Your task to perform on an android device: stop showing notifications on the lock screen Image 0: 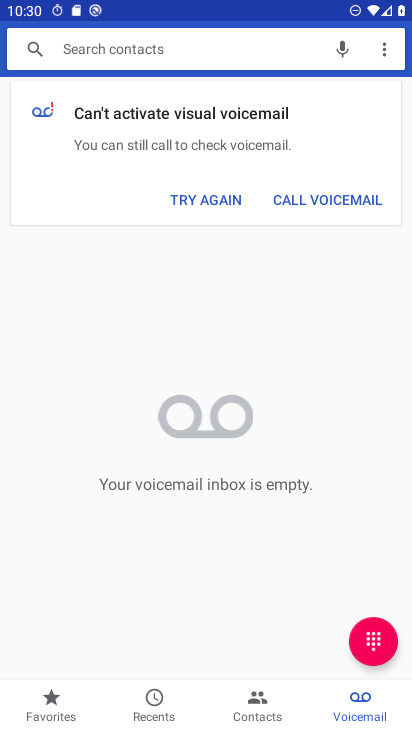
Step 0: press home button
Your task to perform on an android device: stop showing notifications on the lock screen Image 1: 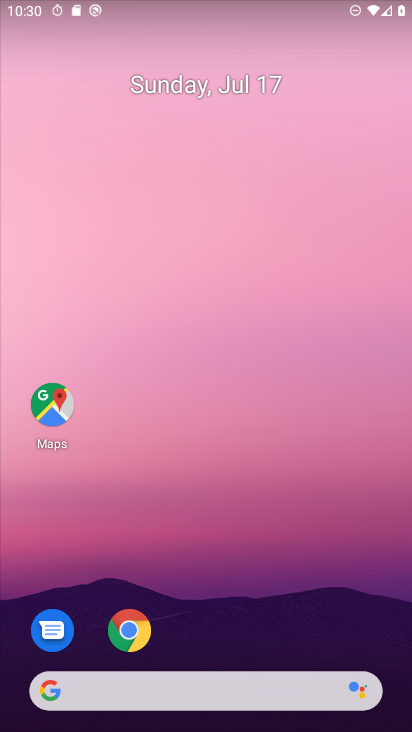
Step 1: drag from (219, 660) to (218, 113)
Your task to perform on an android device: stop showing notifications on the lock screen Image 2: 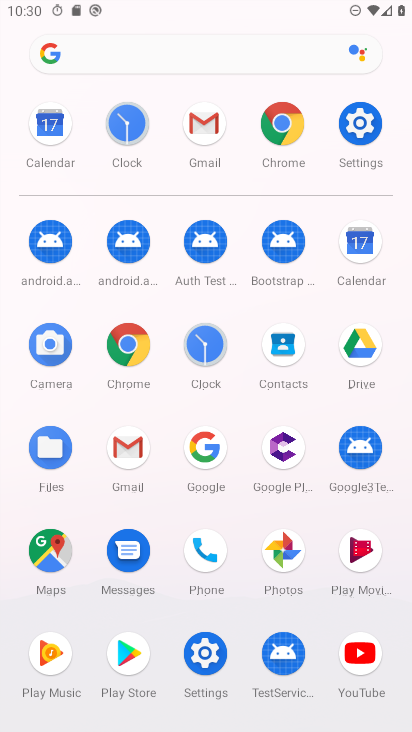
Step 2: click (358, 120)
Your task to perform on an android device: stop showing notifications on the lock screen Image 3: 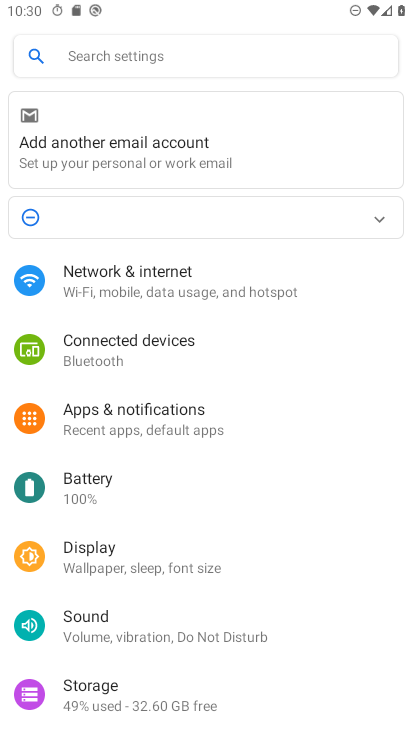
Step 3: click (165, 270)
Your task to perform on an android device: stop showing notifications on the lock screen Image 4: 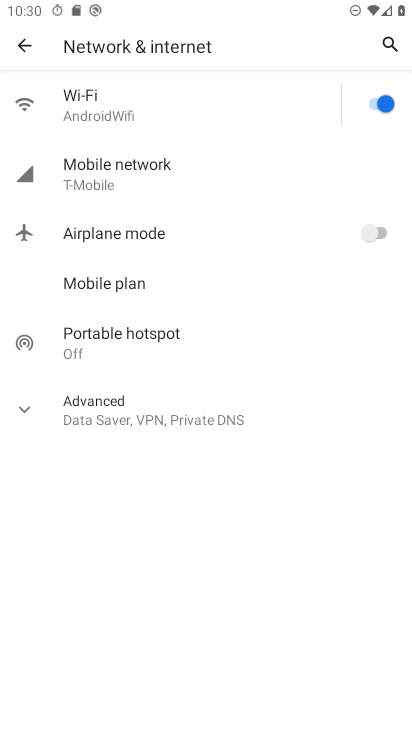
Step 4: click (32, 37)
Your task to perform on an android device: stop showing notifications on the lock screen Image 5: 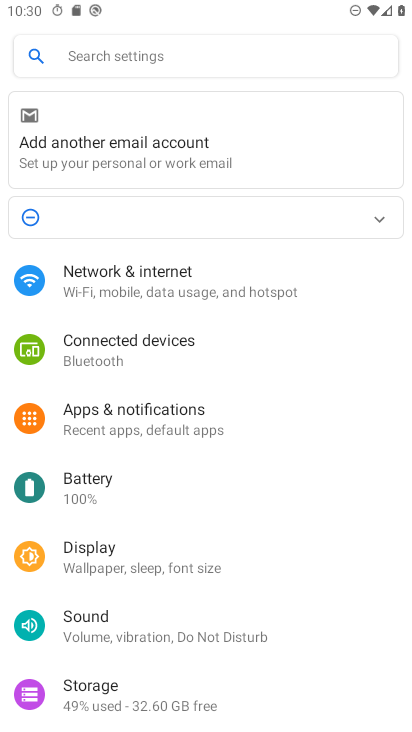
Step 5: click (183, 413)
Your task to perform on an android device: stop showing notifications on the lock screen Image 6: 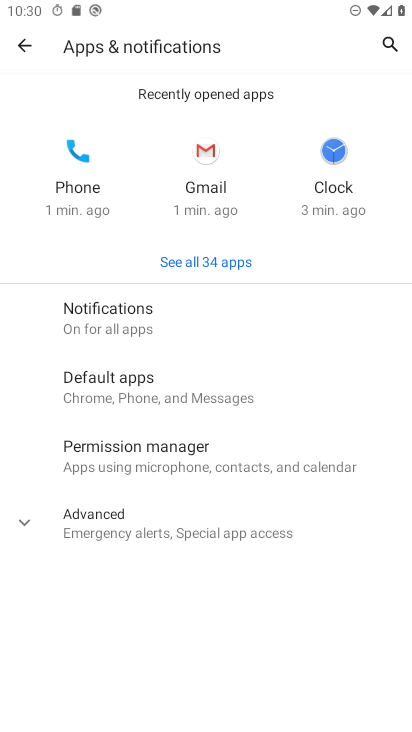
Step 6: click (176, 309)
Your task to perform on an android device: stop showing notifications on the lock screen Image 7: 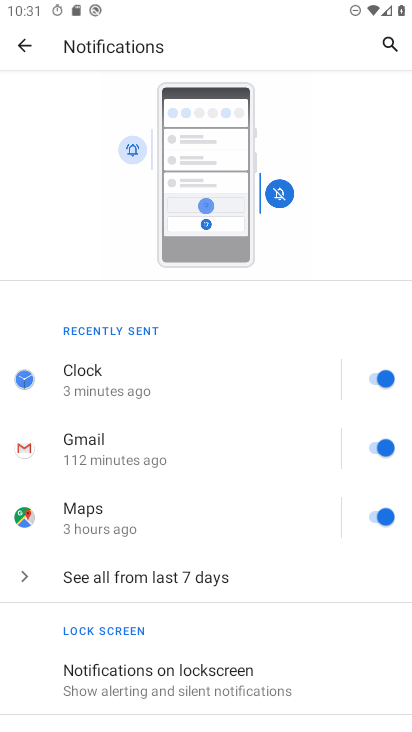
Step 7: click (207, 663)
Your task to perform on an android device: stop showing notifications on the lock screen Image 8: 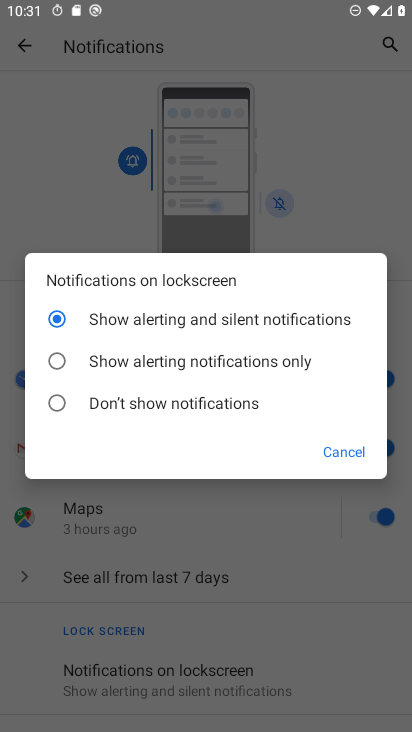
Step 8: click (96, 398)
Your task to perform on an android device: stop showing notifications on the lock screen Image 9: 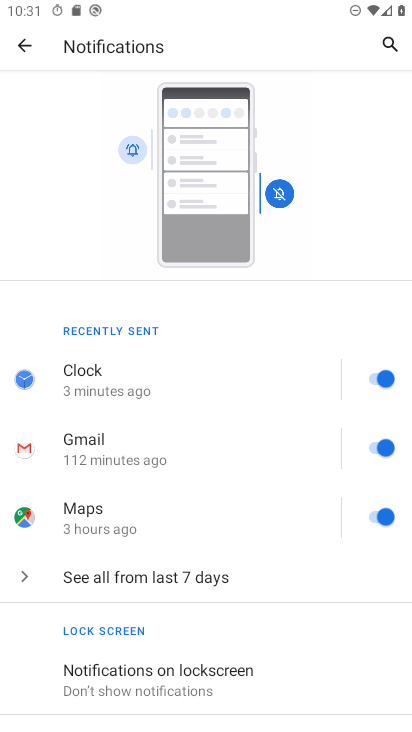
Step 9: task complete